Your task to perform on an android device: open app "NewsBreak: Local News & Alerts" Image 0: 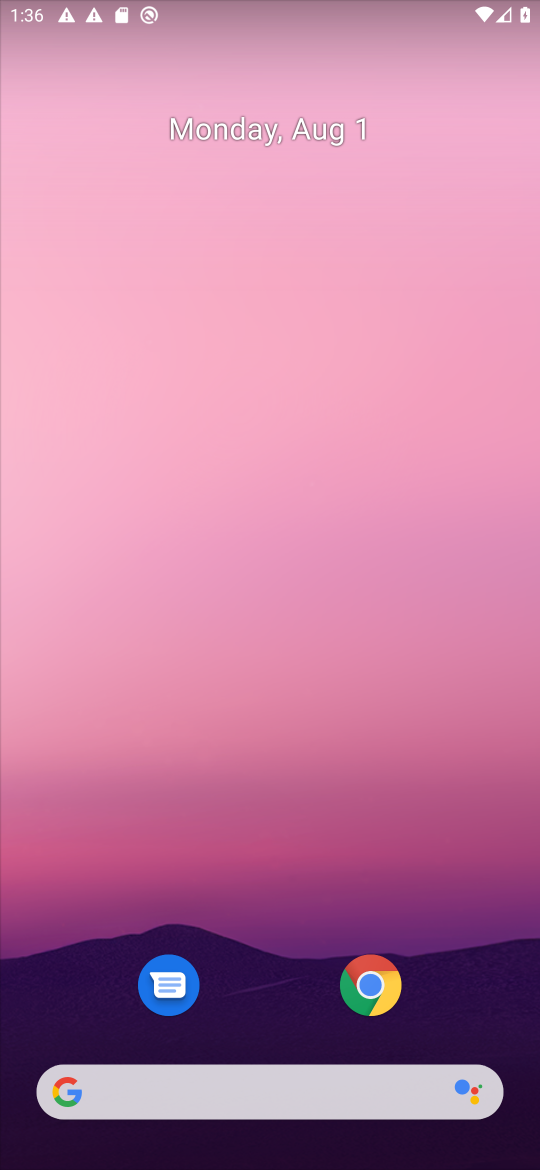
Step 0: click (239, 1152)
Your task to perform on an android device: open app "NewsBreak: Local News & Alerts" Image 1: 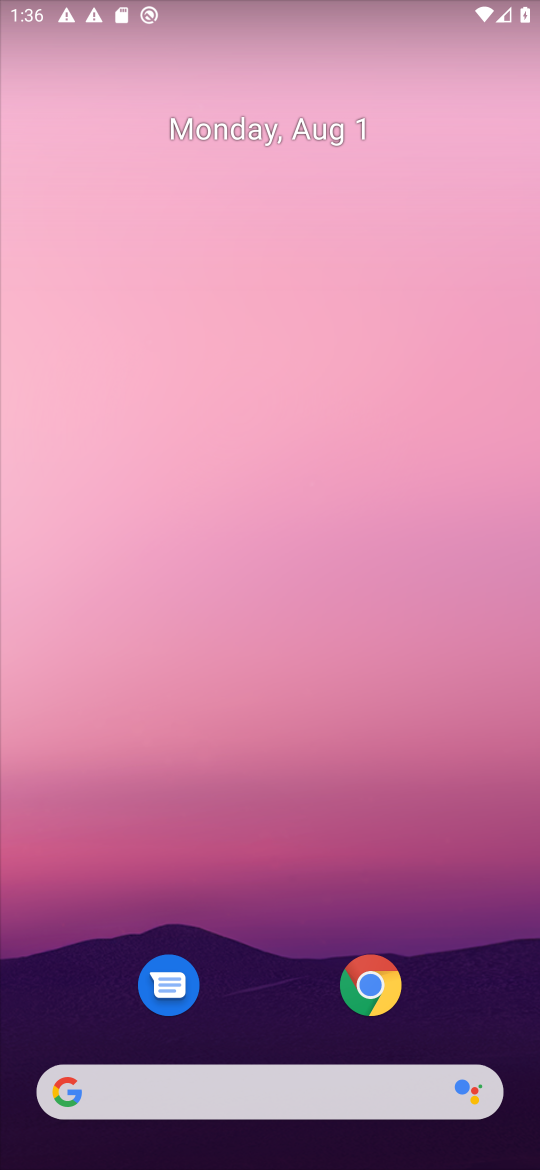
Step 1: drag from (210, 437) to (216, 123)
Your task to perform on an android device: open app "NewsBreak: Local News & Alerts" Image 2: 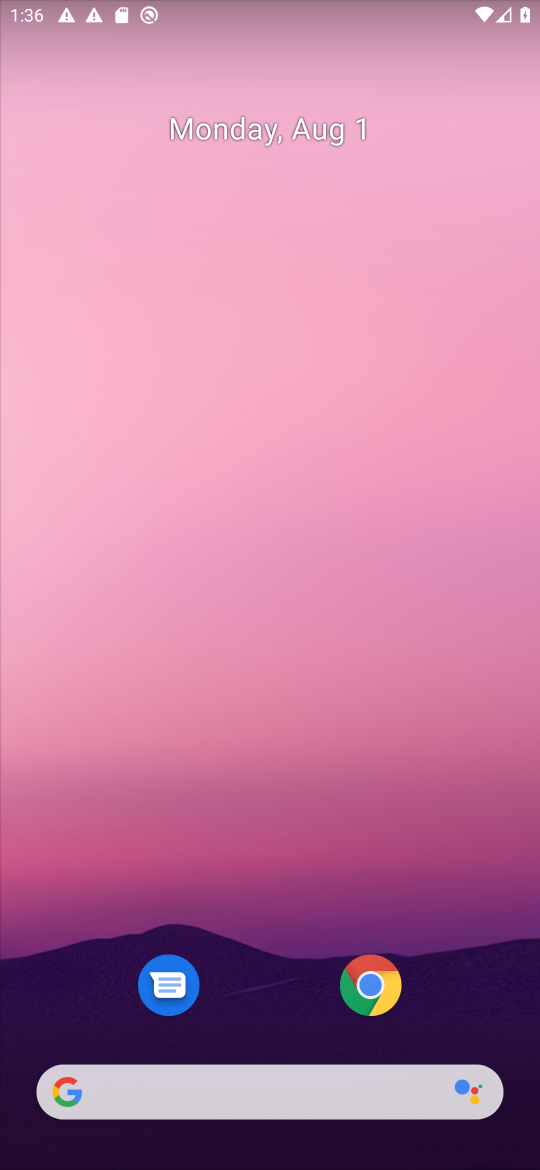
Step 2: drag from (225, 1023) to (221, 249)
Your task to perform on an android device: open app "NewsBreak: Local News & Alerts" Image 3: 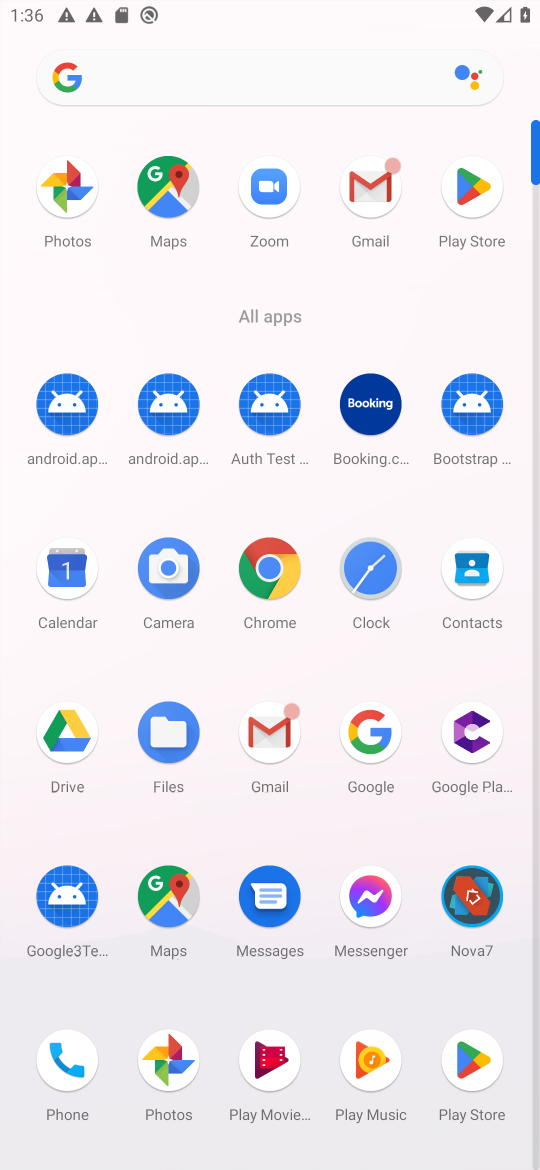
Step 3: click (479, 1054)
Your task to perform on an android device: open app "NewsBreak: Local News & Alerts" Image 4: 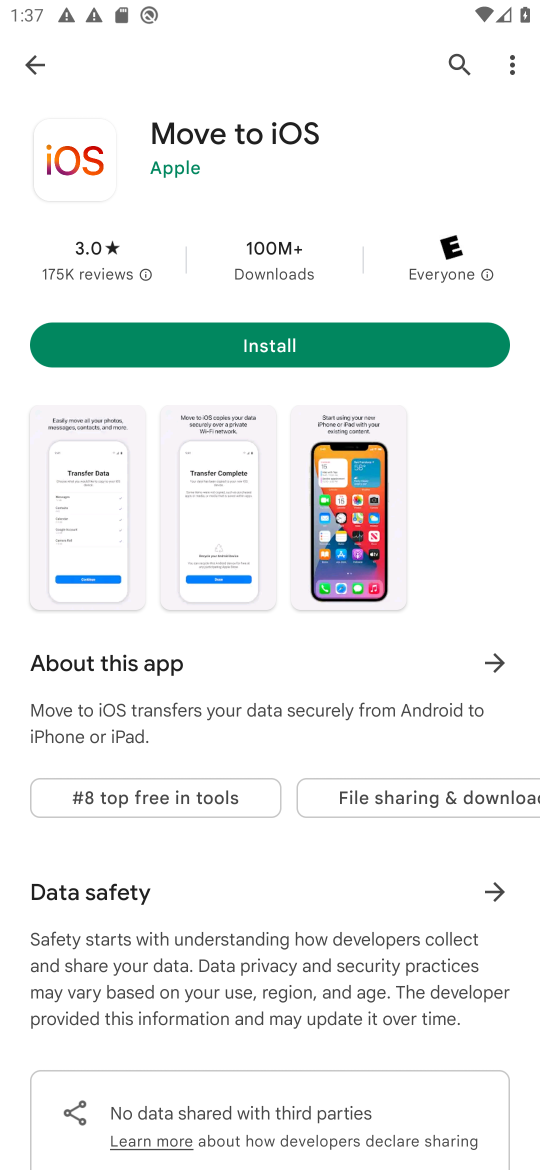
Step 4: click (463, 57)
Your task to perform on an android device: open app "NewsBreak: Local News & Alerts" Image 5: 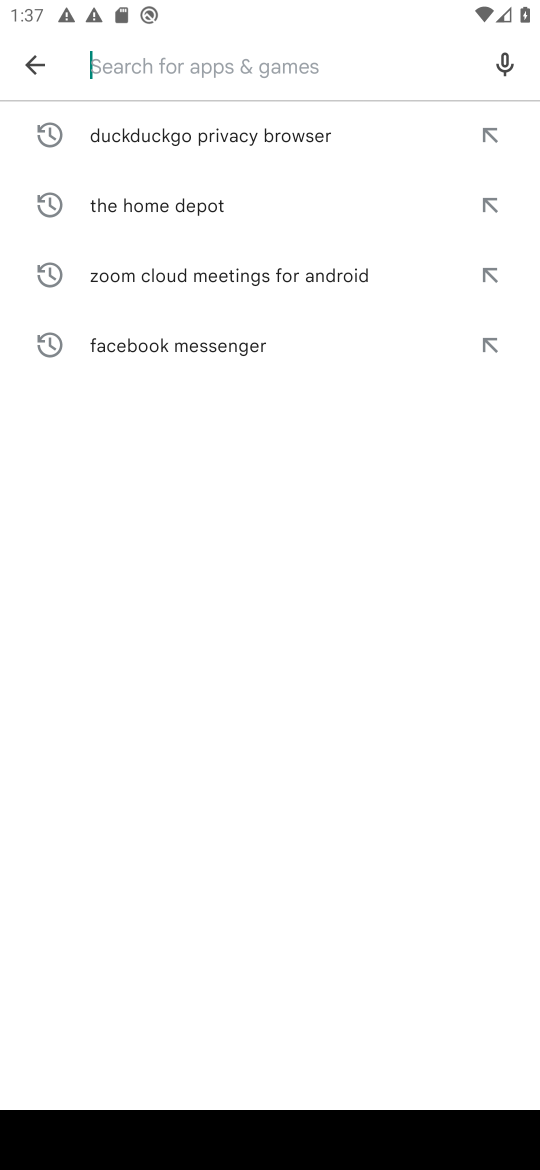
Step 5: type "NewsBreak: Local News & Alerts"
Your task to perform on an android device: open app "NewsBreak: Local News & Alerts" Image 6: 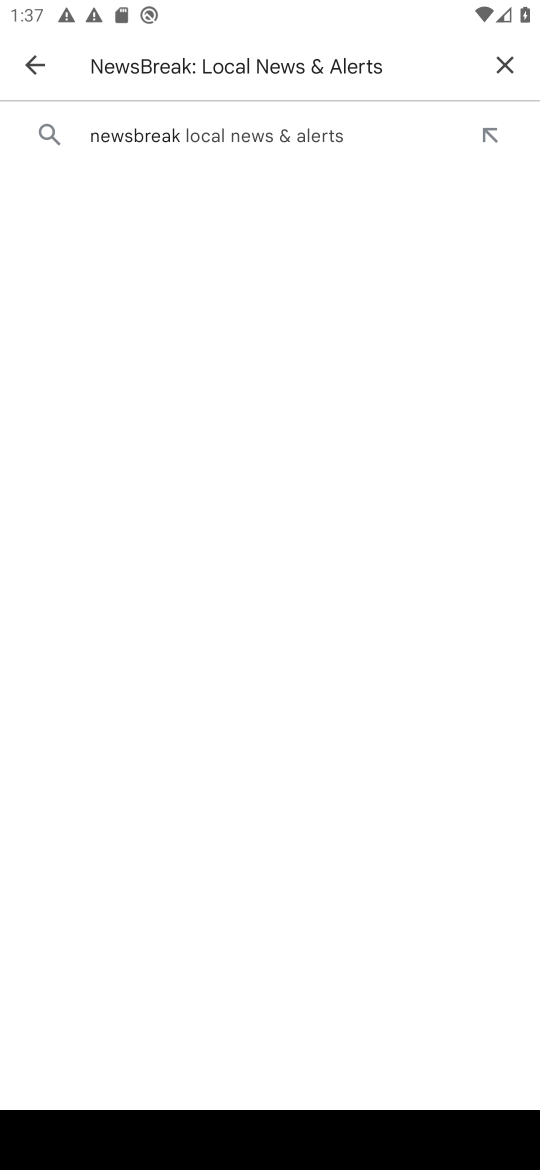
Step 6: click (169, 139)
Your task to perform on an android device: open app "NewsBreak: Local News & Alerts" Image 7: 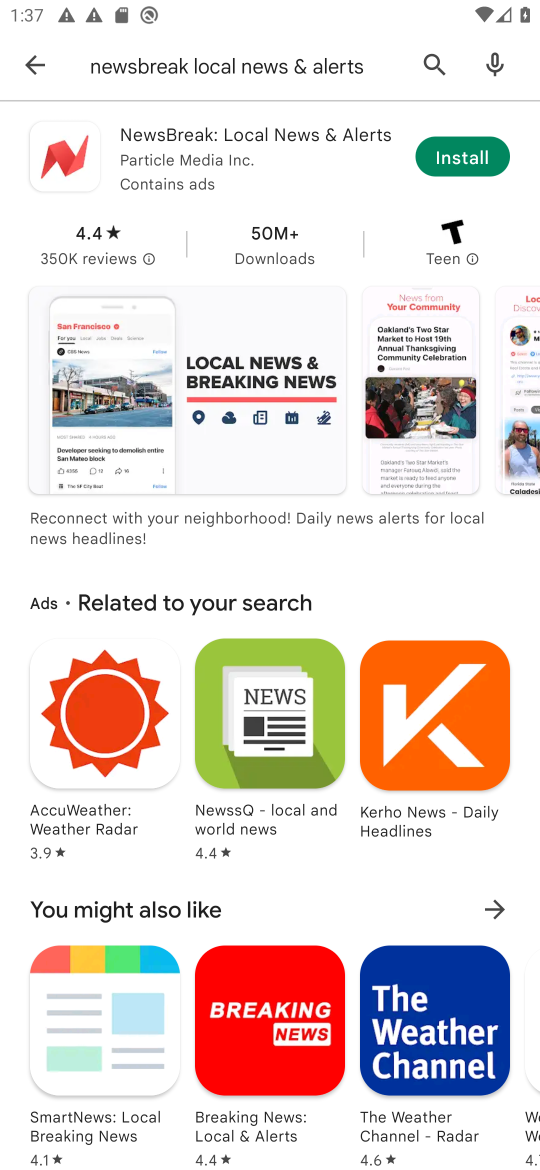
Step 7: task complete